Your task to perform on an android device: turn off notifications settings in the gmail app Image 0: 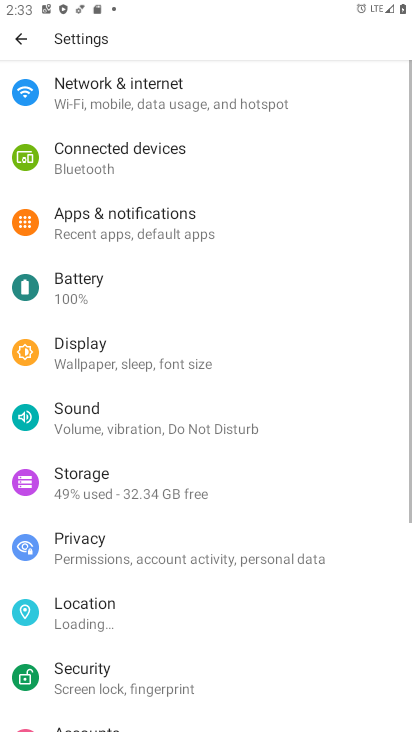
Step 0: press home button
Your task to perform on an android device: turn off notifications settings in the gmail app Image 1: 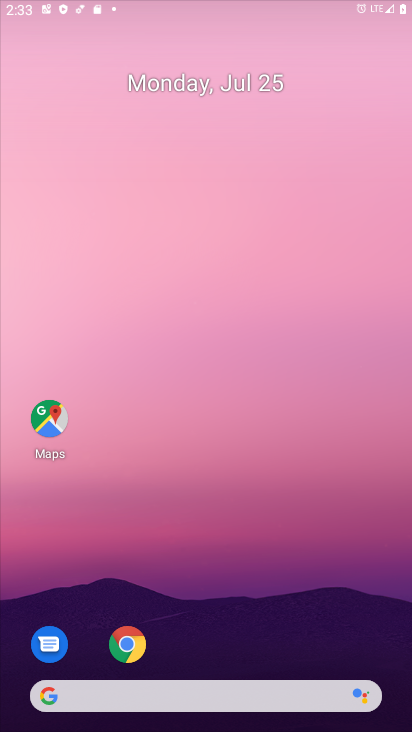
Step 1: drag from (355, 501) to (189, 42)
Your task to perform on an android device: turn off notifications settings in the gmail app Image 2: 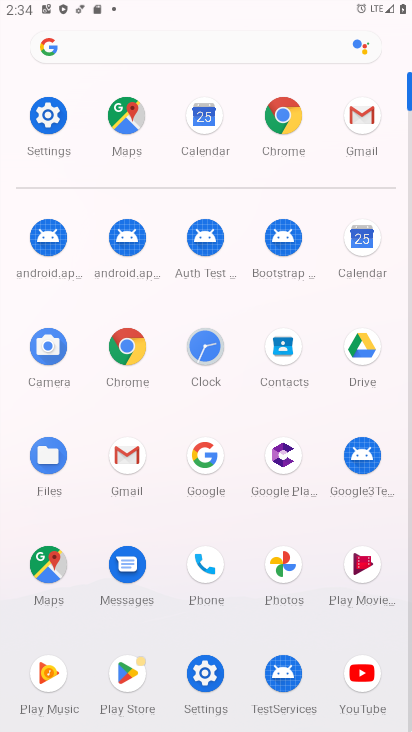
Step 2: click (134, 456)
Your task to perform on an android device: turn off notifications settings in the gmail app Image 3: 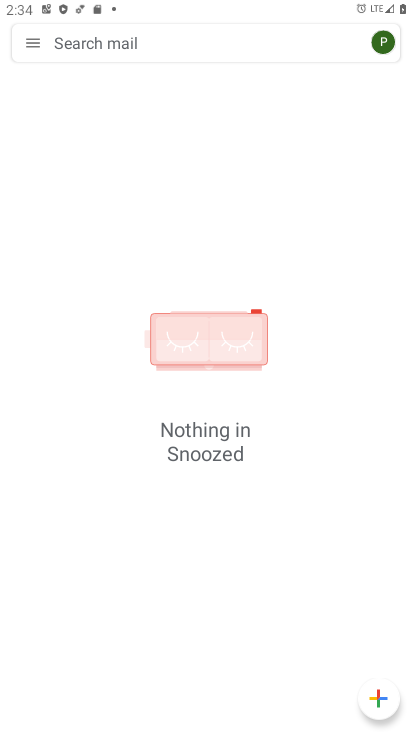
Step 3: click (25, 45)
Your task to perform on an android device: turn off notifications settings in the gmail app Image 4: 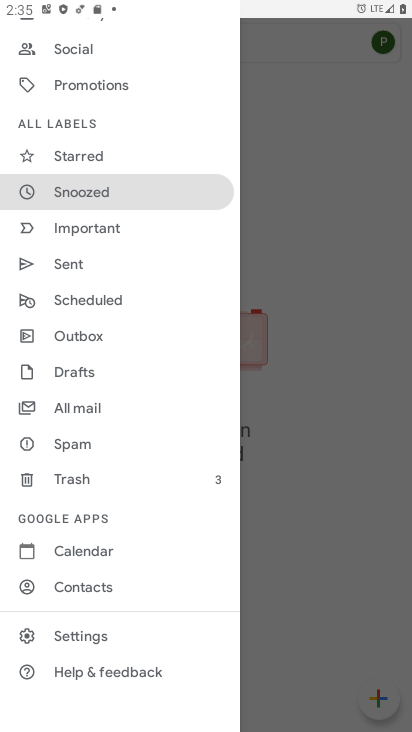
Step 4: click (86, 641)
Your task to perform on an android device: turn off notifications settings in the gmail app Image 5: 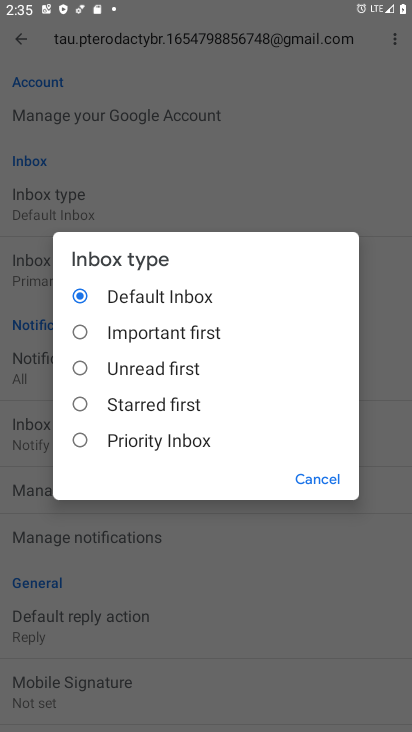
Step 5: click (303, 474)
Your task to perform on an android device: turn off notifications settings in the gmail app Image 6: 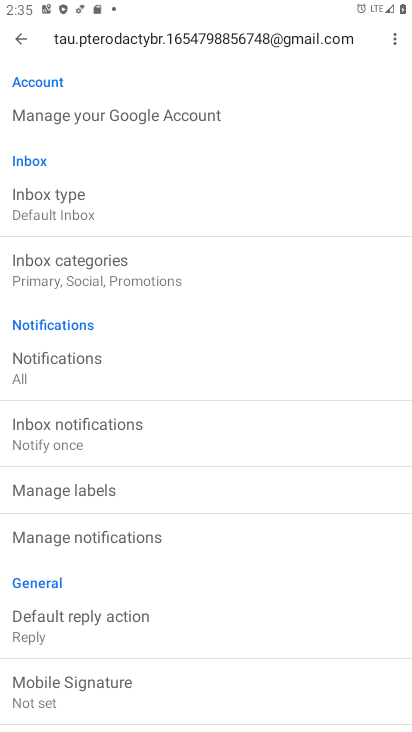
Step 6: click (72, 373)
Your task to perform on an android device: turn off notifications settings in the gmail app Image 7: 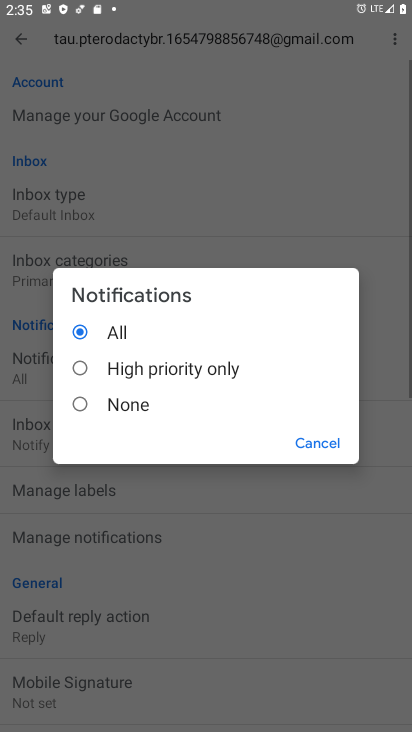
Step 7: click (114, 408)
Your task to perform on an android device: turn off notifications settings in the gmail app Image 8: 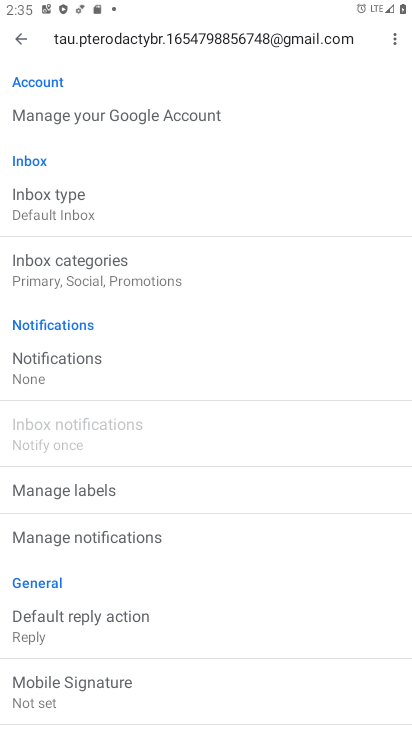
Step 8: task complete